Your task to perform on an android device: add a contact in the contacts app Image 0: 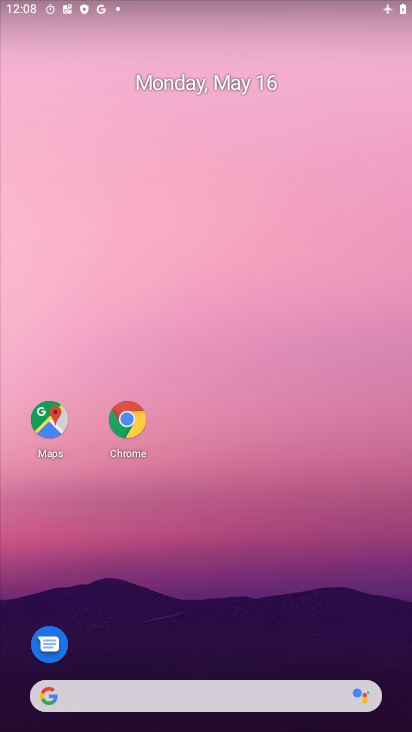
Step 0: drag from (203, 593) to (190, 84)
Your task to perform on an android device: add a contact in the contacts app Image 1: 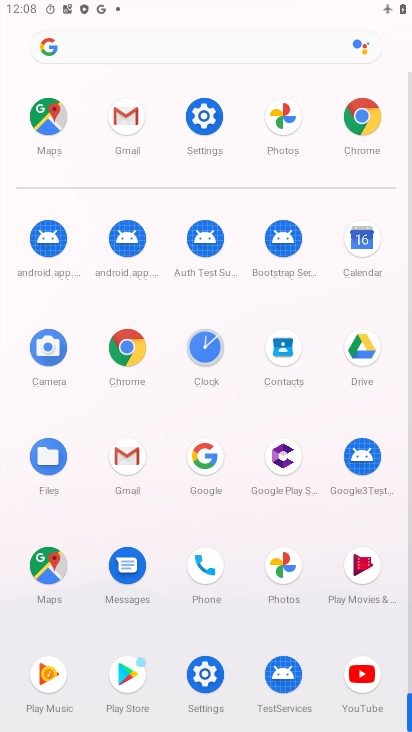
Step 1: click (271, 352)
Your task to perform on an android device: add a contact in the contacts app Image 2: 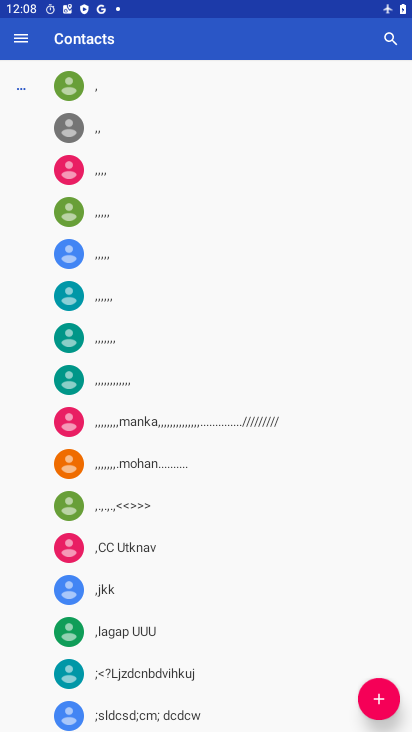
Step 2: drag from (261, 631) to (271, 232)
Your task to perform on an android device: add a contact in the contacts app Image 3: 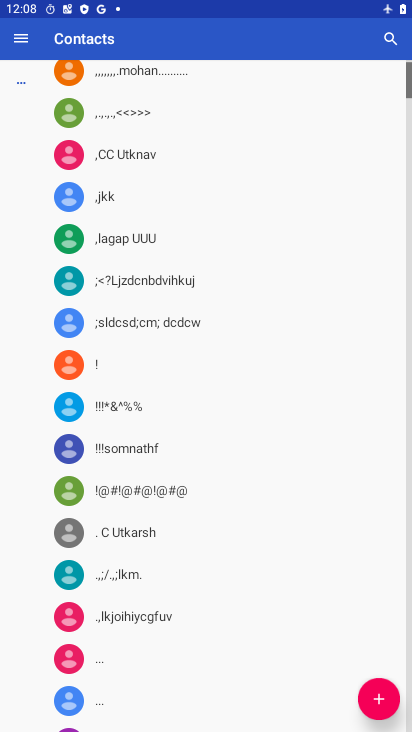
Step 3: drag from (282, 162) to (376, 731)
Your task to perform on an android device: add a contact in the contacts app Image 4: 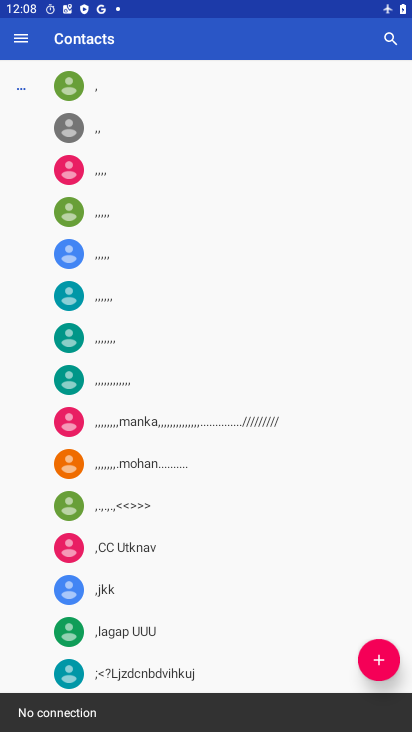
Step 4: click (374, 656)
Your task to perform on an android device: add a contact in the contacts app Image 5: 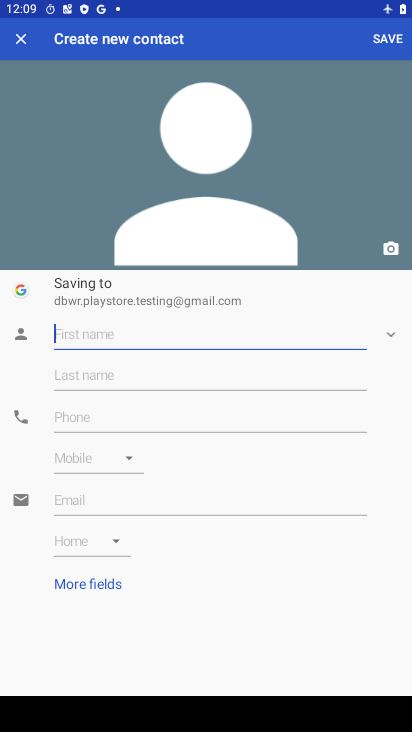
Step 5: type "kmnk"
Your task to perform on an android device: add a contact in the contacts app Image 6: 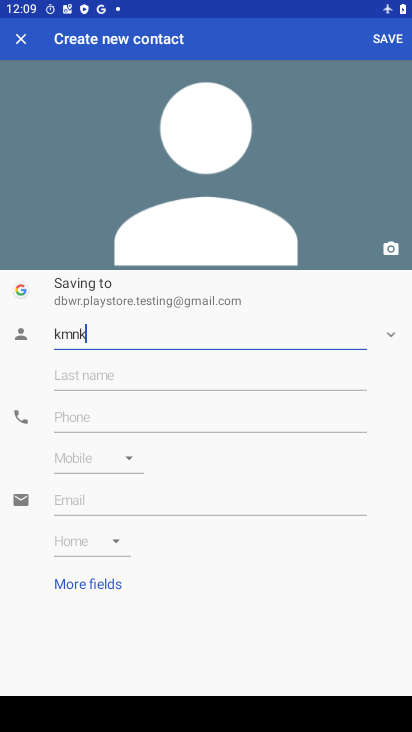
Step 6: click (373, 43)
Your task to perform on an android device: add a contact in the contacts app Image 7: 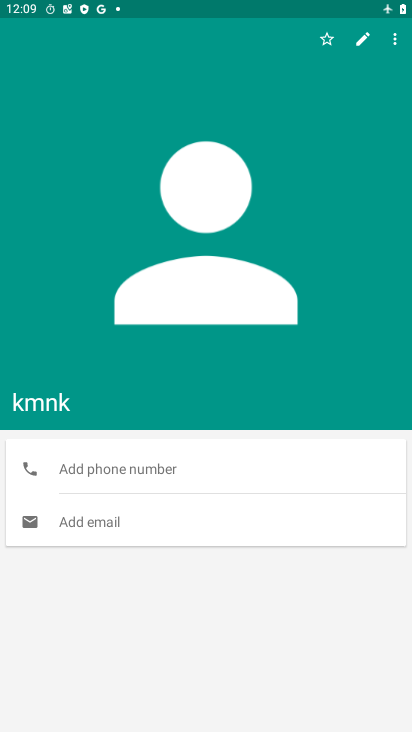
Step 7: task complete